Your task to perform on an android device: Open CNN.com Image 0: 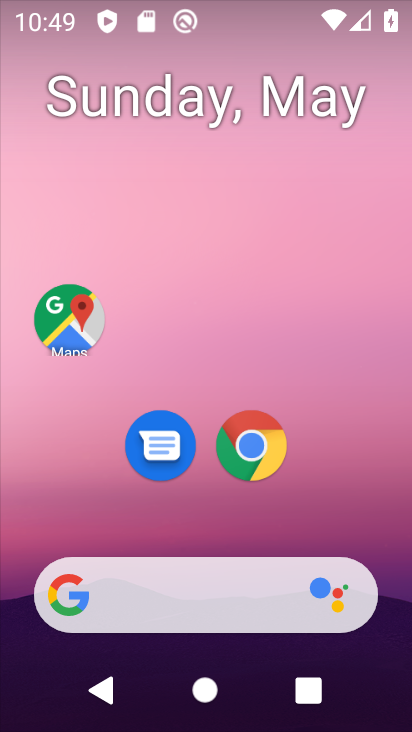
Step 0: click (262, 439)
Your task to perform on an android device: Open CNN.com Image 1: 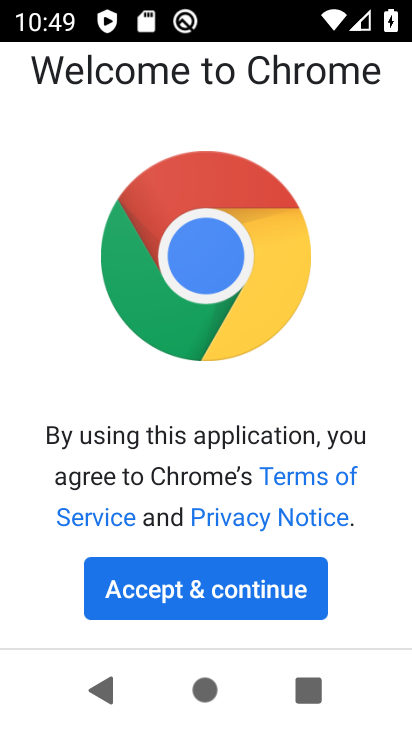
Step 1: click (197, 593)
Your task to perform on an android device: Open CNN.com Image 2: 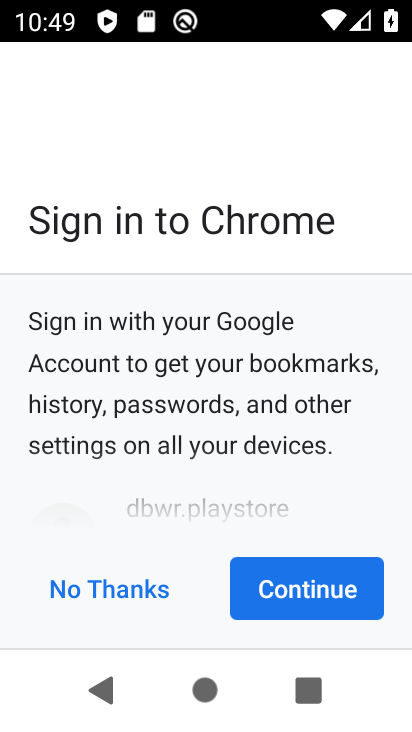
Step 2: click (377, 601)
Your task to perform on an android device: Open CNN.com Image 3: 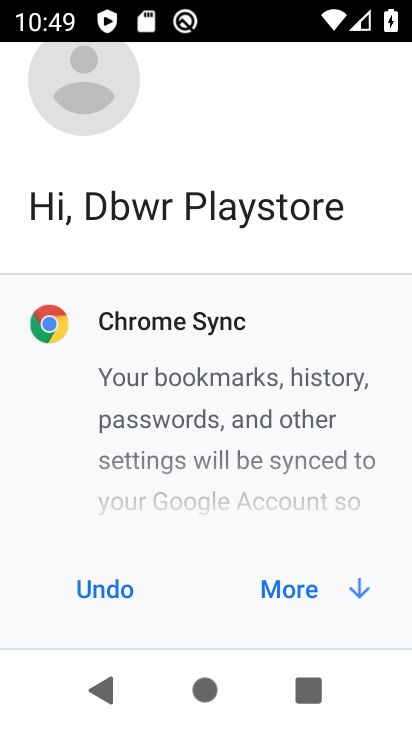
Step 3: click (331, 587)
Your task to perform on an android device: Open CNN.com Image 4: 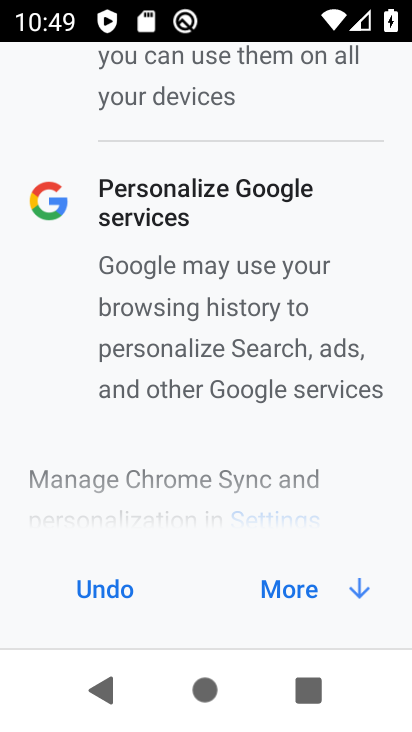
Step 4: click (331, 587)
Your task to perform on an android device: Open CNN.com Image 5: 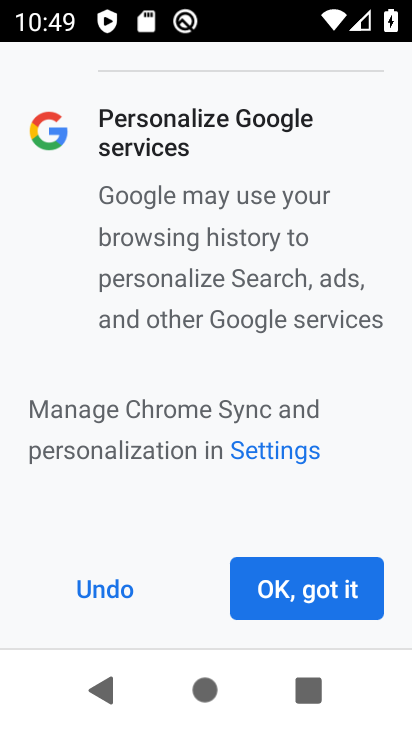
Step 5: click (331, 587)
Your task to perform on an android device: Open CNN.com Image 6: 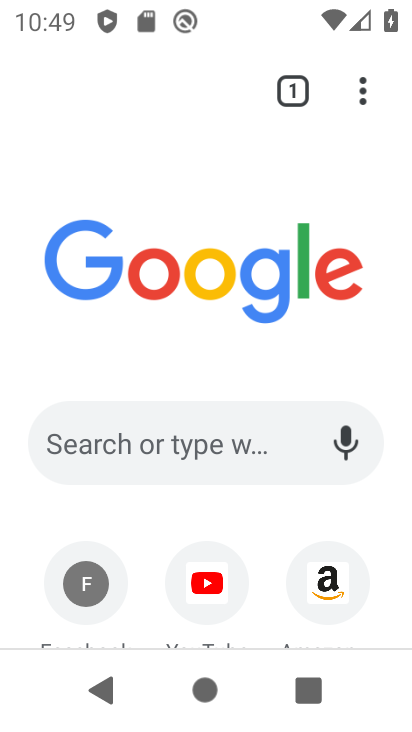
Step 6: click (176, 459)
Your task to perform on an android device: Open CNN.com Image 7: 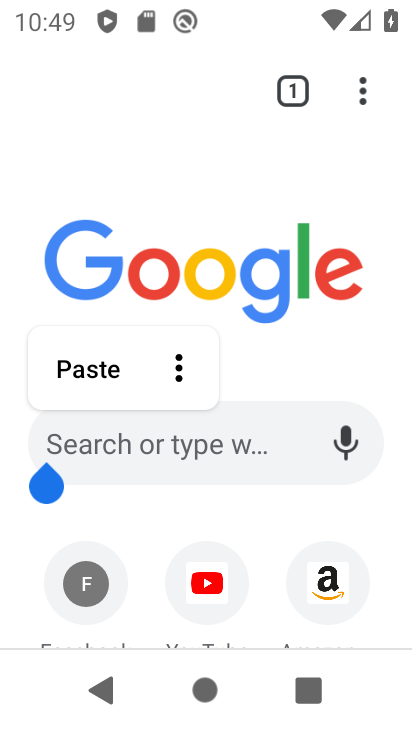
Step 7: click (234, 436)
Your task to perform on an android device: Open CNN.com Image 8: 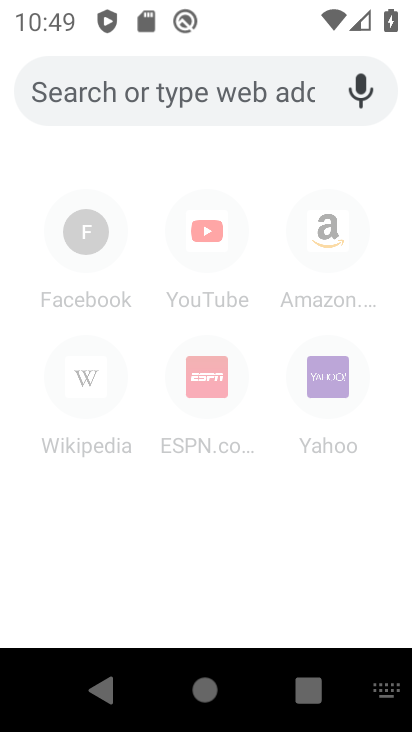
Step 8: type "CNN.com"
Your task to perform on an android device: Open CNN.com Image 9: 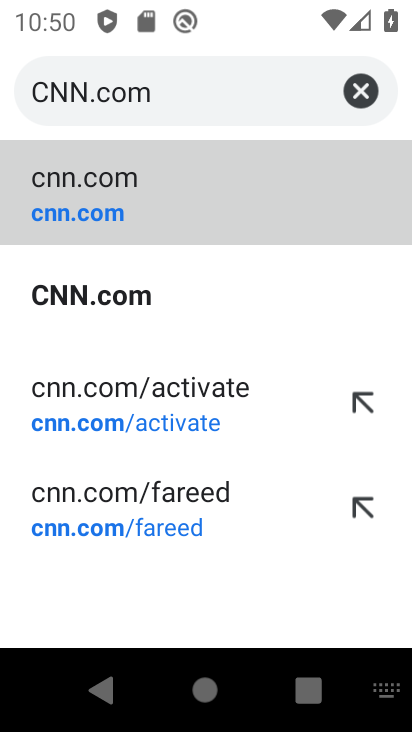
Step 9: click (63, 209)
Your task to perform on an android device: Open CNN.com Image 10: 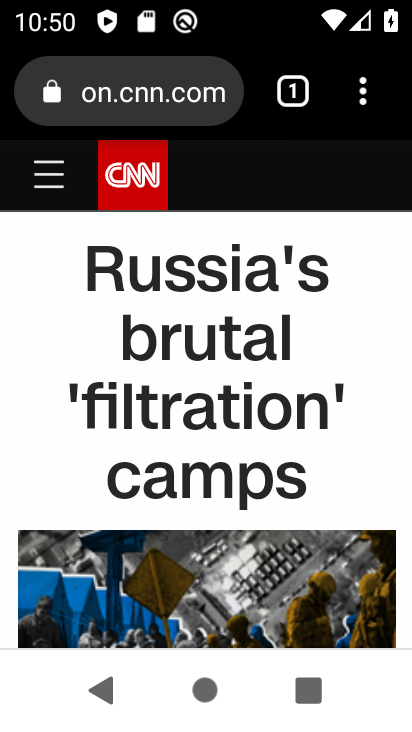
Step 10: task complete